Your task to perform on an android device: Open Reddit.com Image 0: 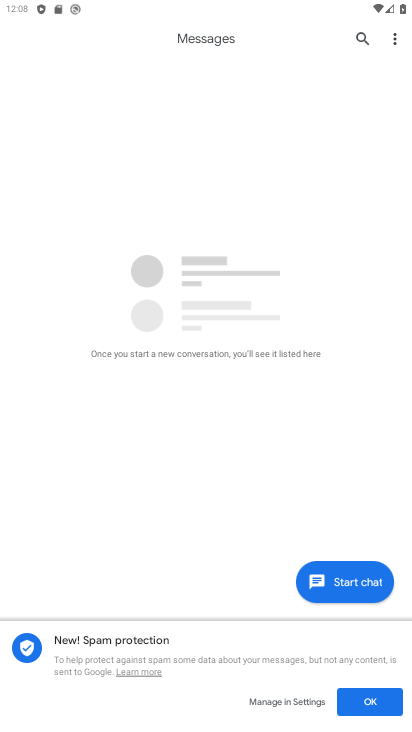
Step 0: press home button
Your task to perform on an android device: Open Reddit.com Image 1: 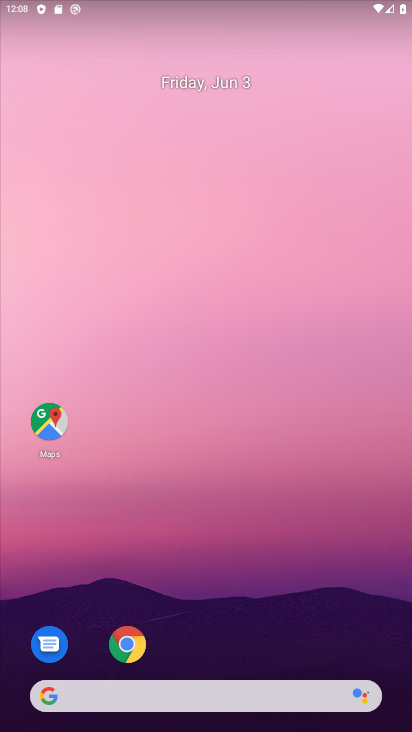
Step 1: click (128, 649)
Your task to perform on an android device: Open Reddit.com Image 2: 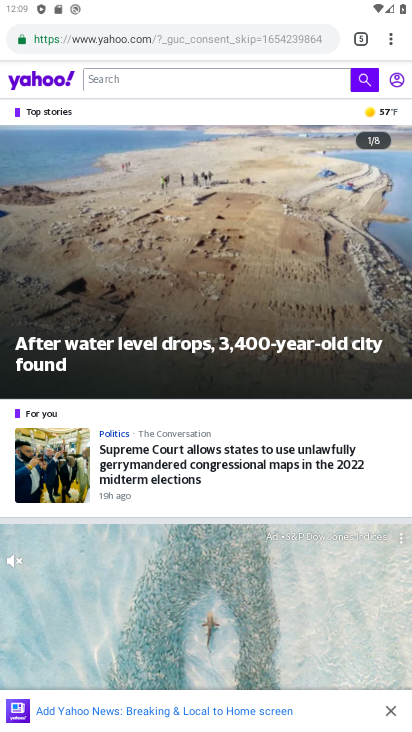
Step 2: click (391, 45)
Your task to perform on an android device: Open Reddit.com Image 3: 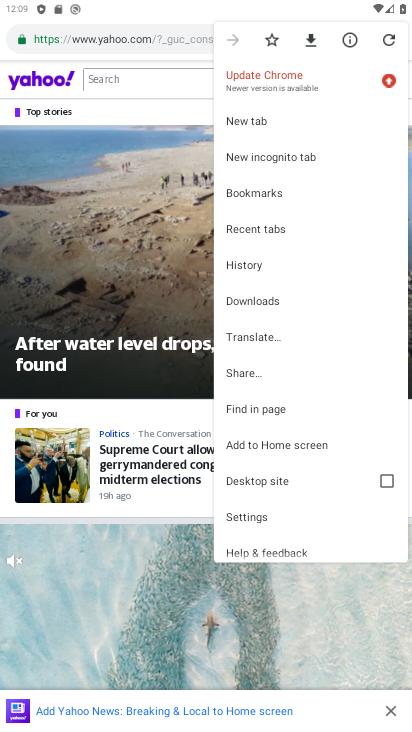
Step 3: click (243, 121)
Your task to perform on an android device: Open Reddit.com Image 4: 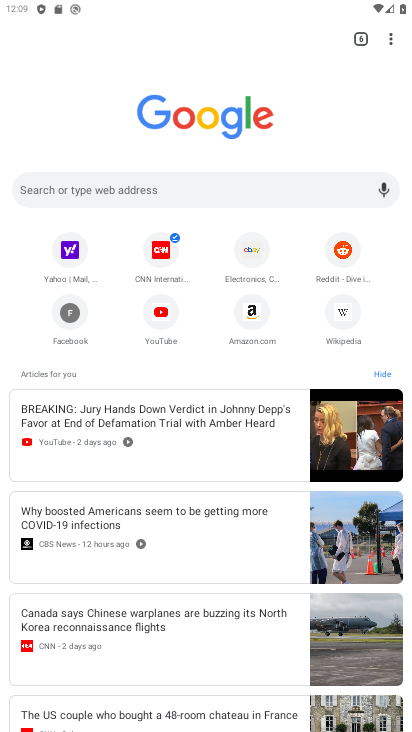
Step 4: click (178, 192)
Your task to perform on an android device: Open Reddit.com Image 5: 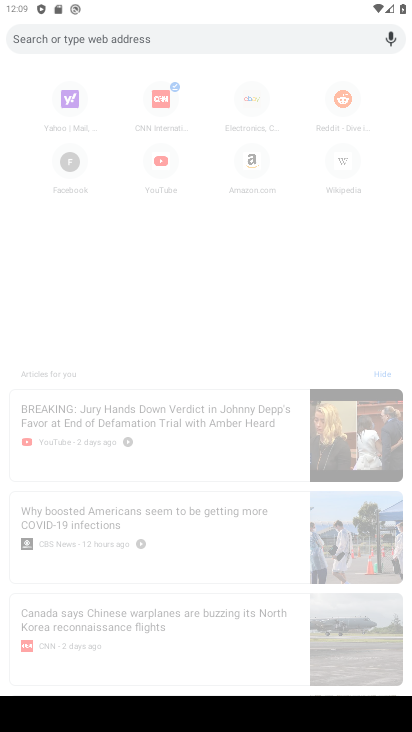
Step 5: type "Reddit.com"
Your task to perform on an android device: Open Reddit.com Image 6: 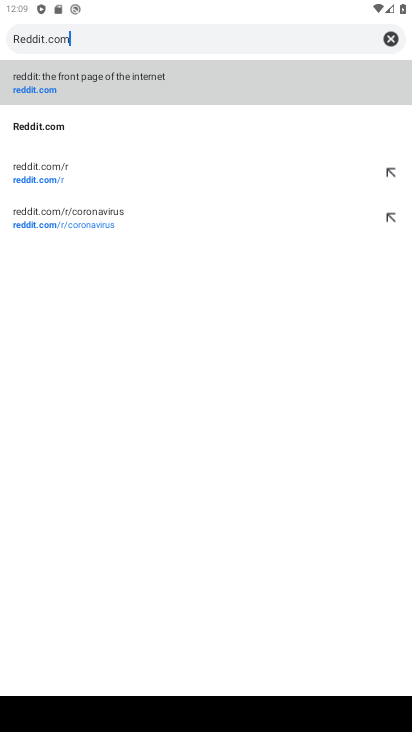
Step 6: click (48, 120)
Your task to perform on an android device: Open Reddit.com Image 7: 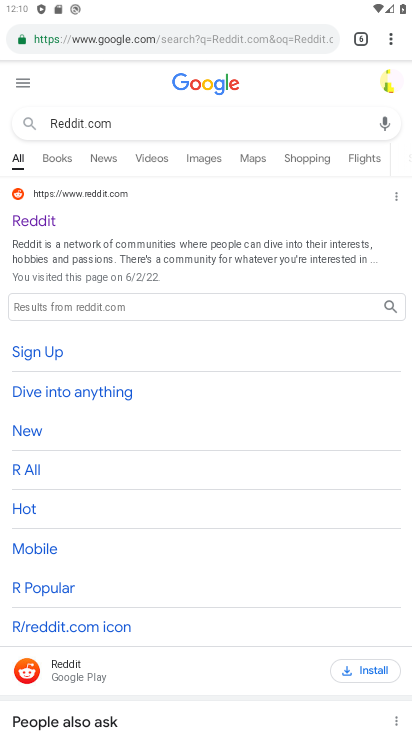
Step 7: click (27, 223)
Your task to perform on an android device: Open Reddit.com Image 8: 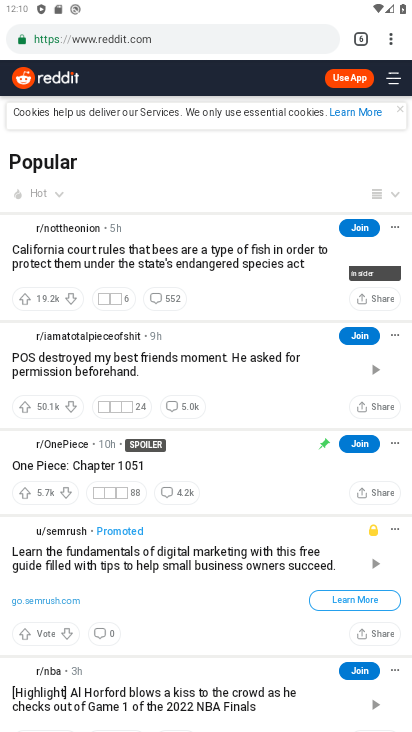
Step 8: task complete